Your task to perform on an android device: Check the news Image 0: 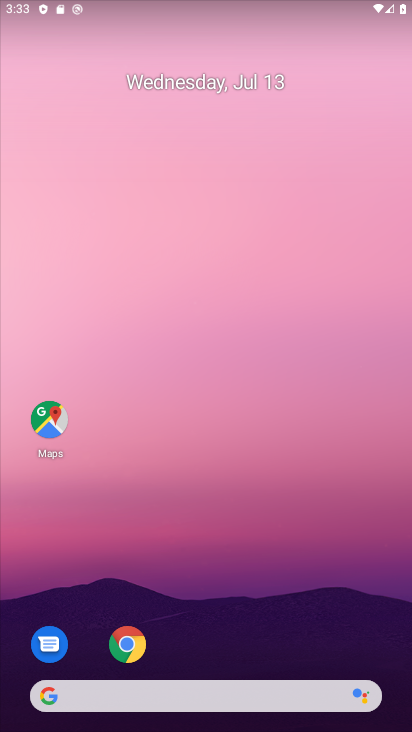
Step 0: drag from (3, 291) to (302, 250)
Your task to perform on an android device: Check the news Image 1: 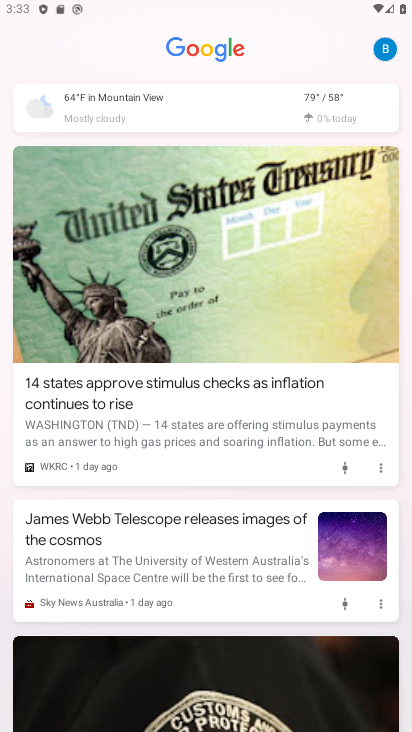
Step 1: task complete